Your task to perform on an android device: turn on improve location accuracy Image 0: 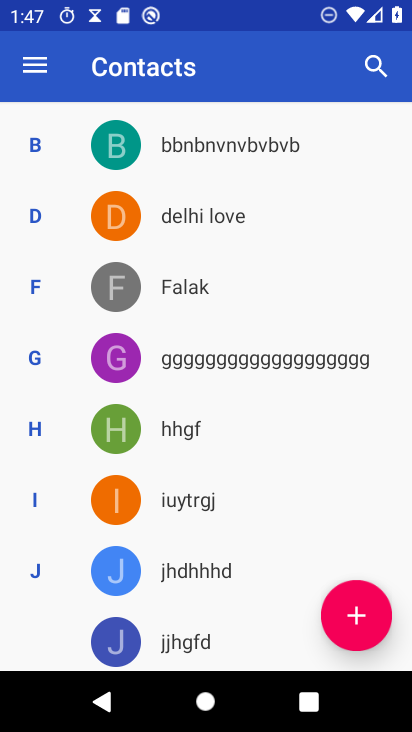
Step 0: press home button
Your task to perform on an android device: turn on improve location accuracy Image 1: 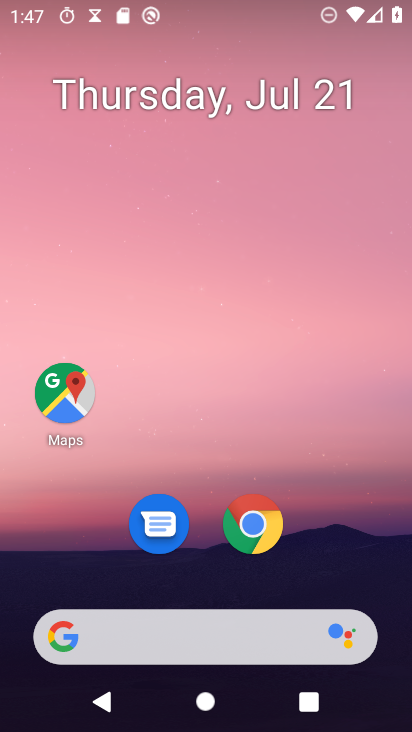
Step 1: drag from (207, 642) to (319, 61)
Your task to perform on an android device: turn on improve location accuracy Image 2: 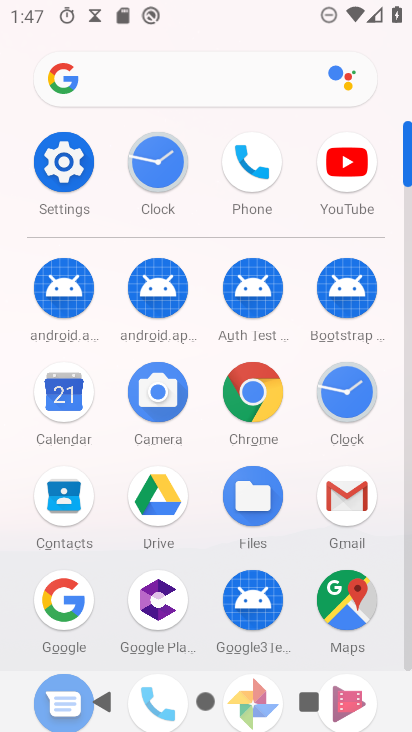
Step 2: click (51, 157)
Your task to perform on an android device: turn on improve location accuracy Image 3: 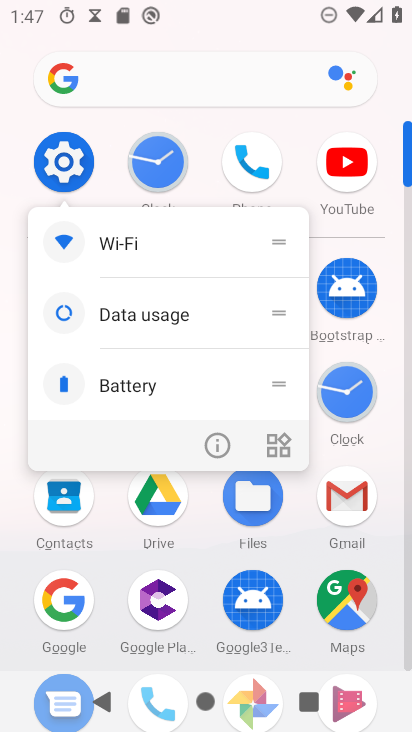
Step 3: click (58, 164)
Your task to perform on an android device: turn on improve location accuracy Image 4: 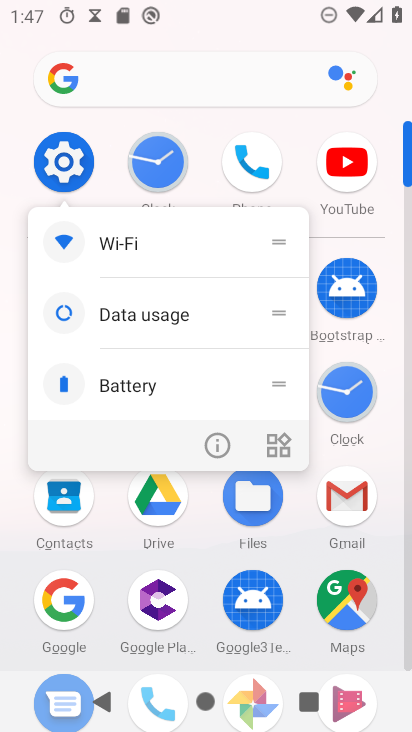
Step 4: click (65, 159)
Your task to perform on an android device: turn on improve location accuracy Image 5: 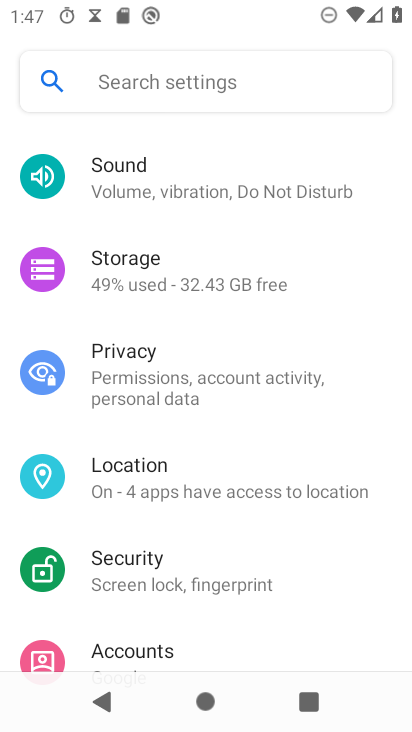
Step 5: drag from (274, 451) to (353, 290)
Your task to perform on an android device: turn on improve location accuracy Image 6: 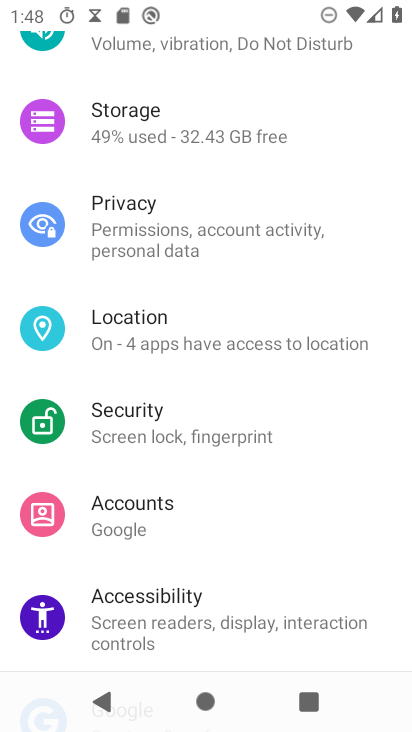
Step 6: click (177, 337)
Your task to perform on an android device: turn on improve location accuracy Image 7: 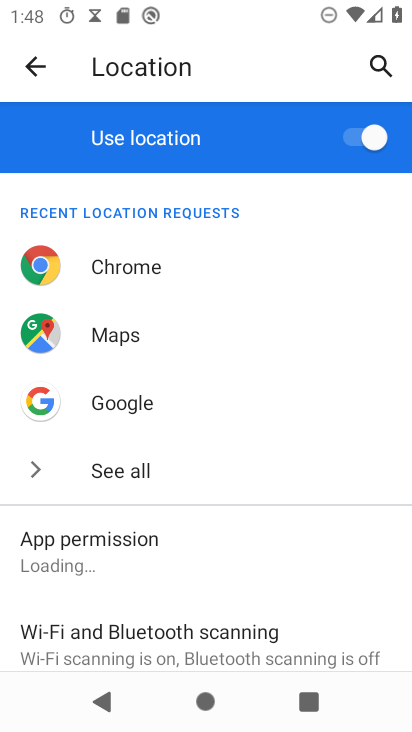
Step 7: drag from (221, 505) to (298, 32)
Your task to perform on an android device: turn on improve location accuracy Image 8: 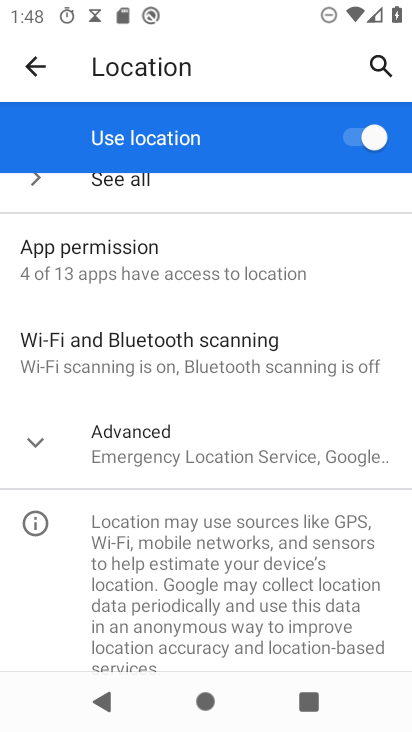
Step 8: click (128, 400)
Your task to perform on an android device: turn on improve location accuracy Image 9: 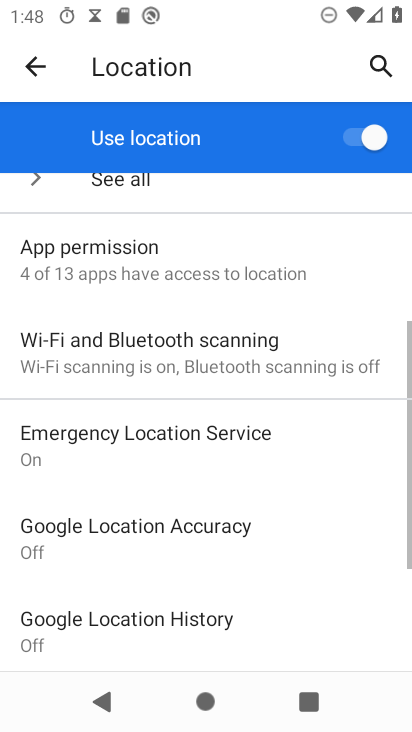
Step 9: drag from (173, 468) to (255, 114)
Your task to perform on an android device: turn on improve location accuracy Image 10: 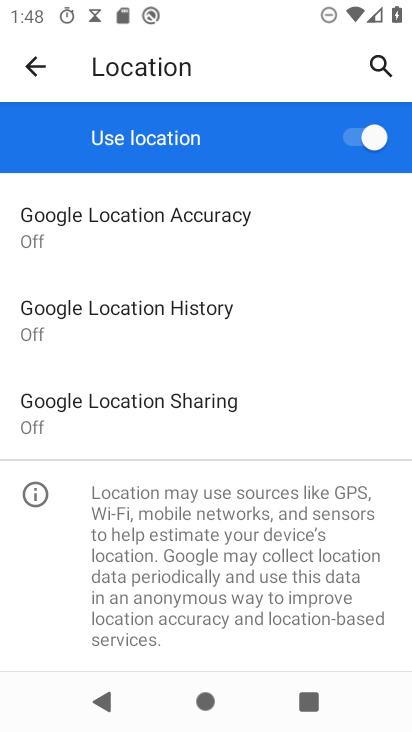
Step 10: click (152, 223)
Your task to perform on an android device: turn on improve location accuracy Image 11: 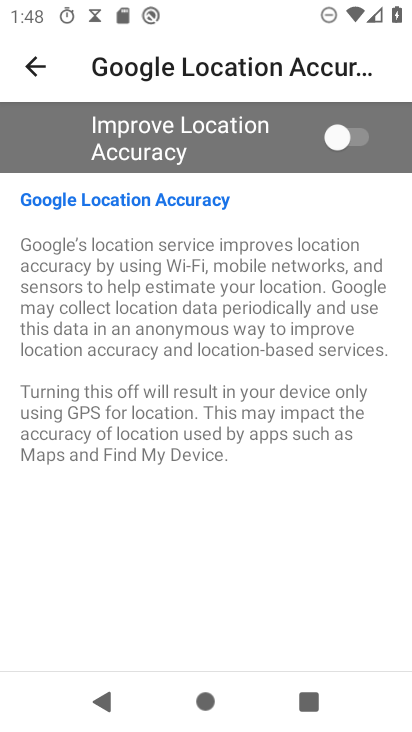
Step 11: task complete